Your task to perform on an android device: What's on my calendar tomorrow? Image 0: 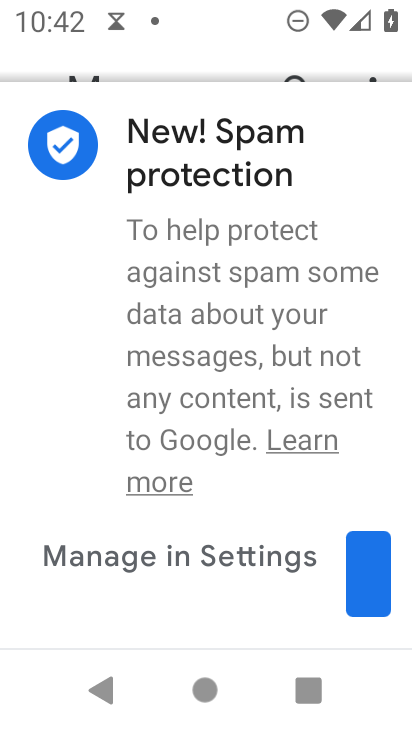
Step 0: press home button
Your task to perform on an android device: What's on my calendar tomorrow? Image 1: 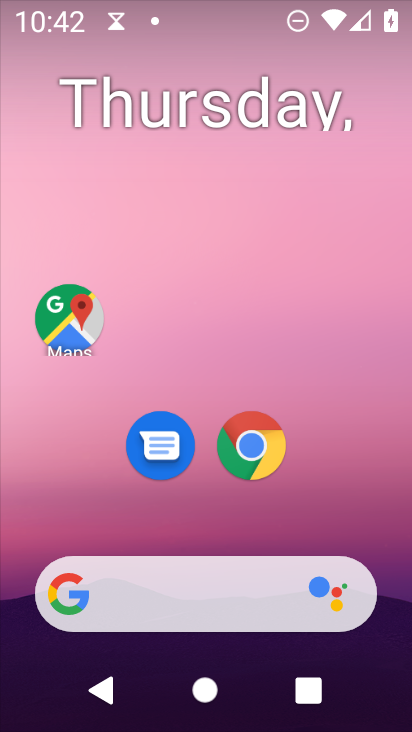
Step 1: drag from (219, 726) to (237, 3)
Your task to perform on an android device: What's on my calendar tomorrow? Image 2: 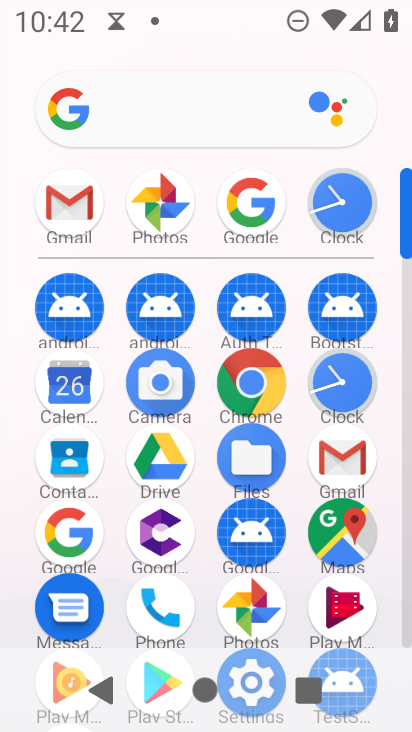
Step 2: click (64, 385)
Your task to perform on an android device: What's on my calendar tomorrow? Image 3: 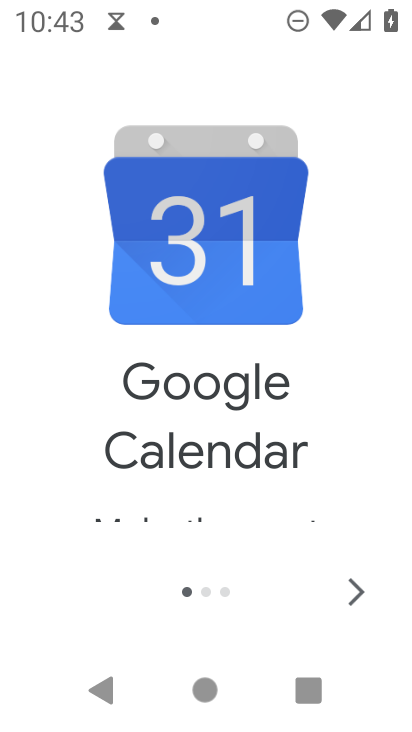
Step 3: click (350, 588)
Your task to perform on an android device: What's on my calendar tomorrow? Image 4: 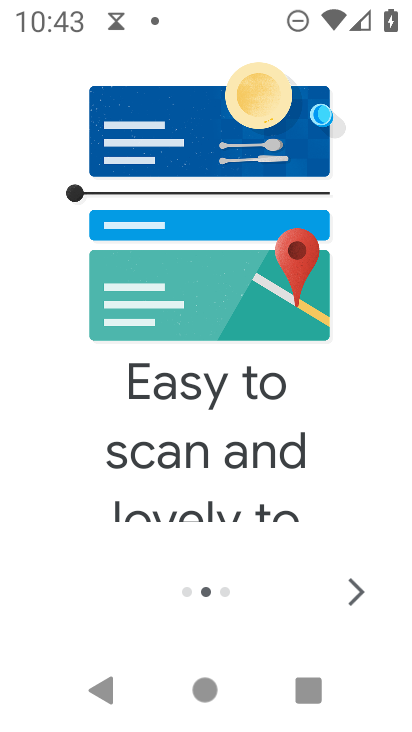
Step 4: click (353, 589)
Your task to perform on an android device: What's on my calendar tomorrow? Image 5: 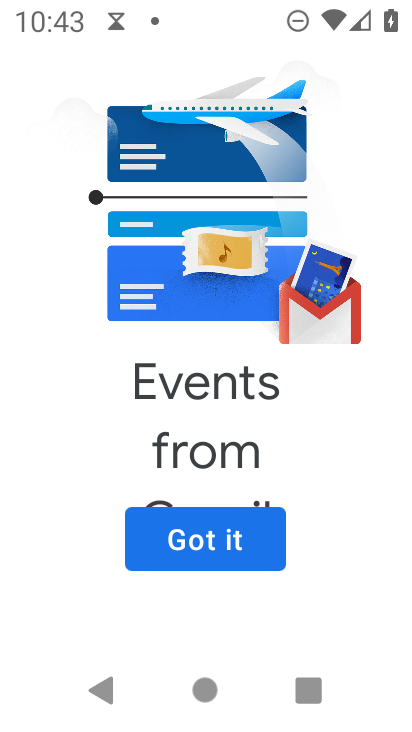
Step 5: click (230, 536)
Your task to perform on an android device: What's on my calendar tomorrow? Image 6: 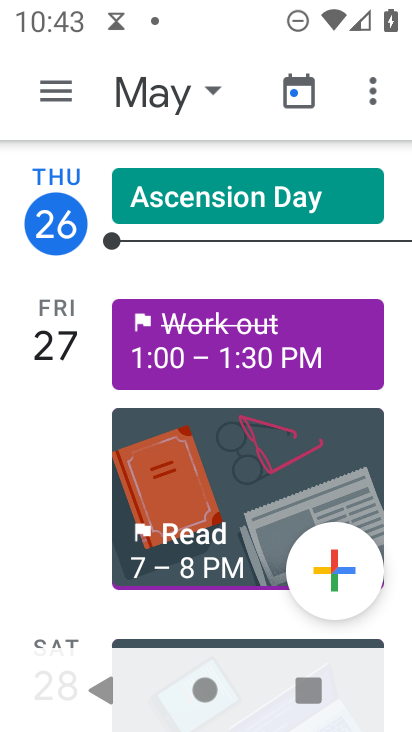
Step 6: click (44, 312)
Your task to perform on an android device: What's on my calendar tomorrow? Image 7: 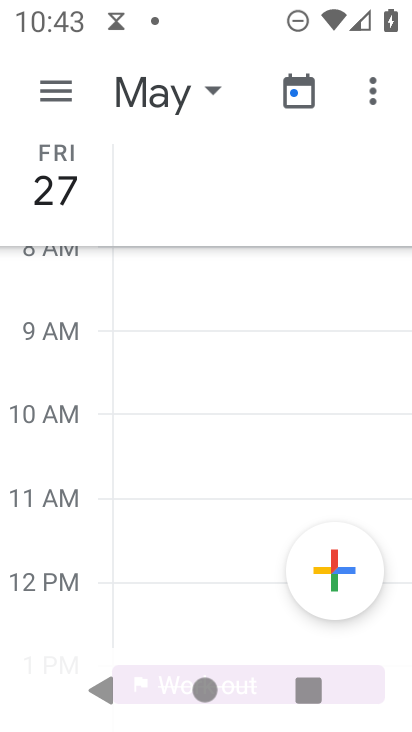
Step 7: task complete